Your task to perform on an android device: Open Google Image 0: 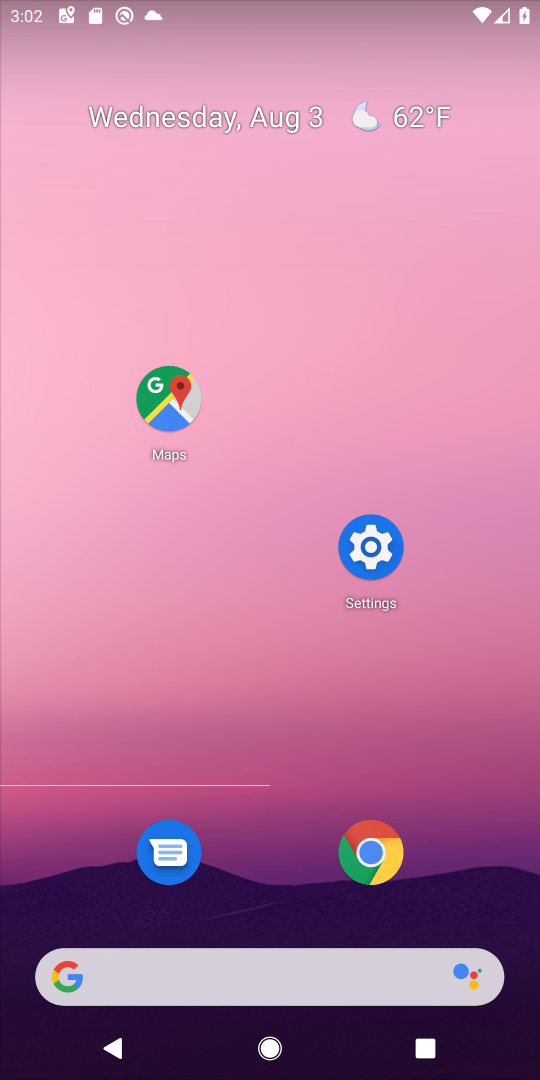
Step 0: drag from (321, 947) to (456, 252)
Your task to perform on an android device: Open Google Image 1: 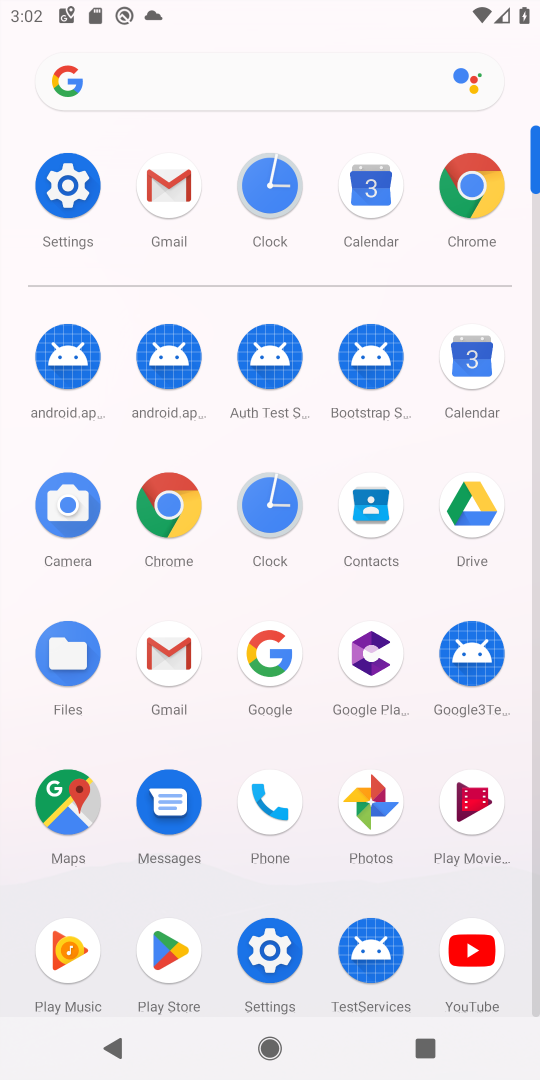
Step 1: click (275, 657)
Your task to perform on an android device: Open Google Image 2: 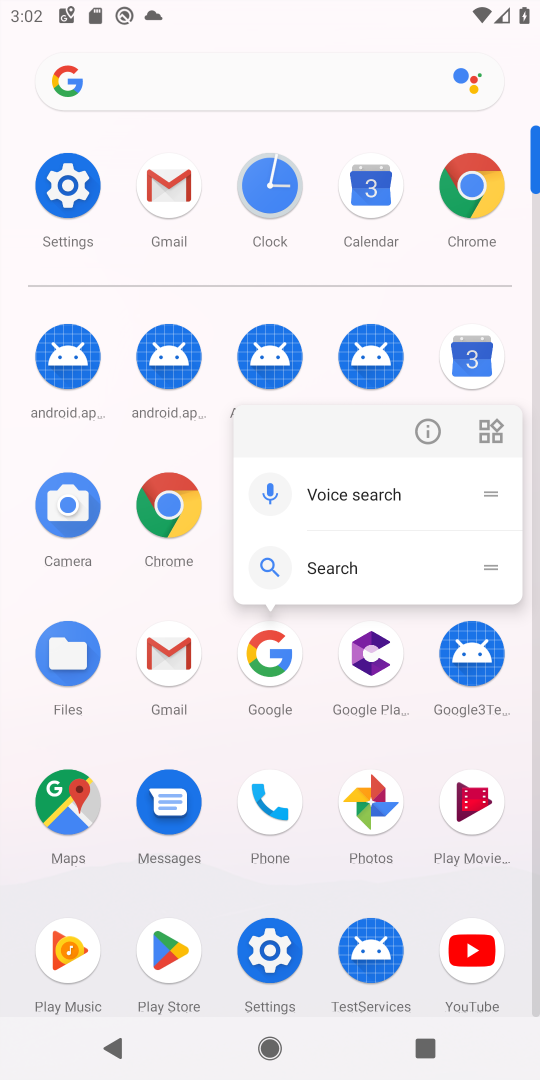
Step 2: click (270, 661)
Your task to perform on an android device: Open Google Image 3: 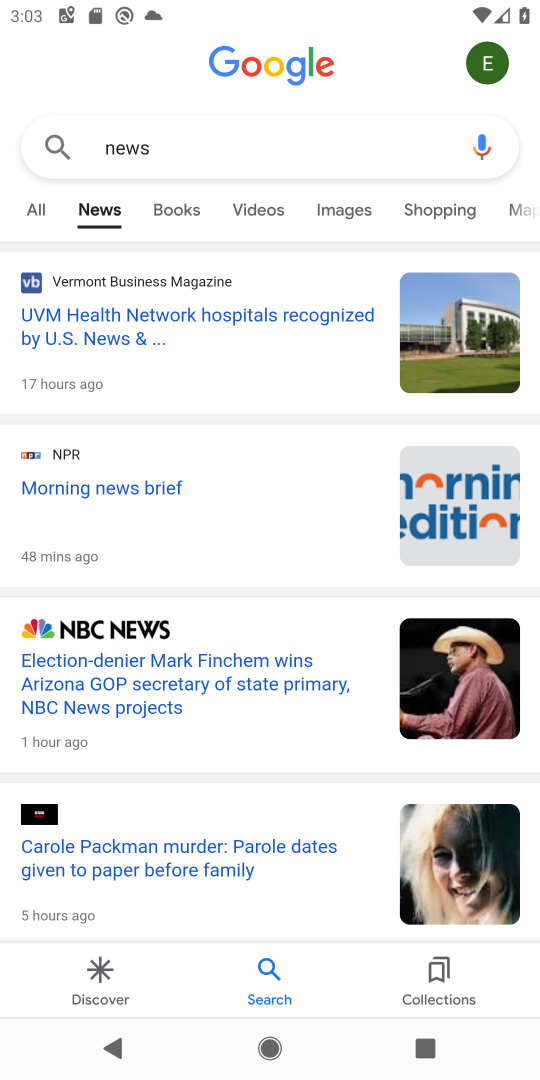
Step 3: task complete